Your task to perform on an android device: Open my contact list Image 0: 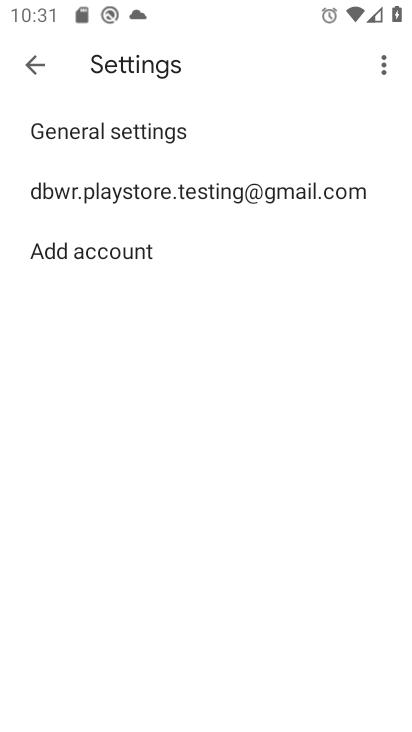
Step 0: click (370, 170)
Your task to perform on an android device: Open my contact list Image 1: 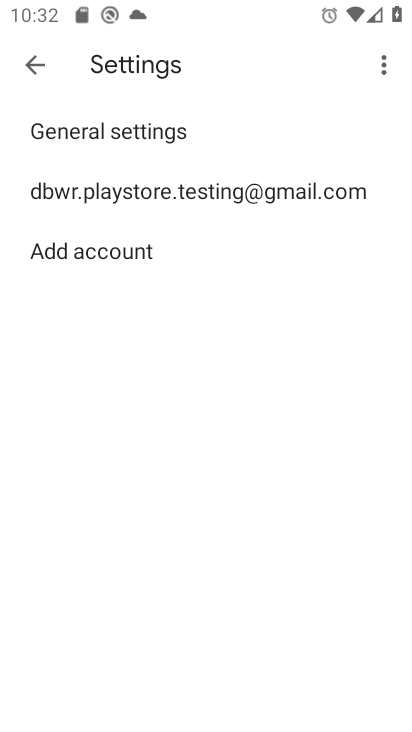
Step 1: click (22, 72)
Your task to perform on an android device: Open my contact list Image 2: 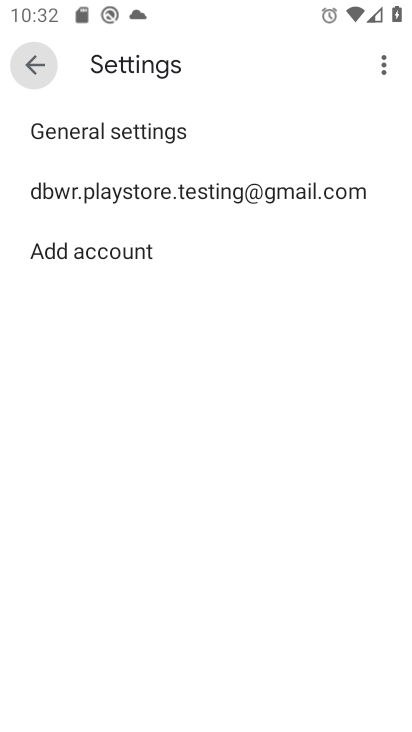
Step 2: click (22, 72)
Your task to perform on an android device: Open my contact list Image 3: 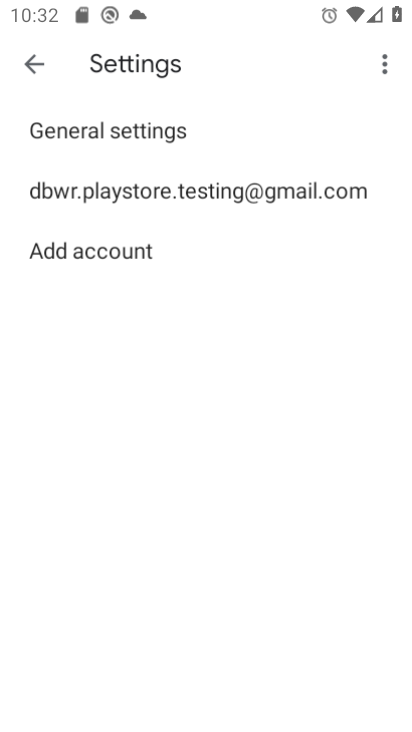
Step 3: click (27, 68)
Your task to perform on an android device: Open my contact list Image 4: 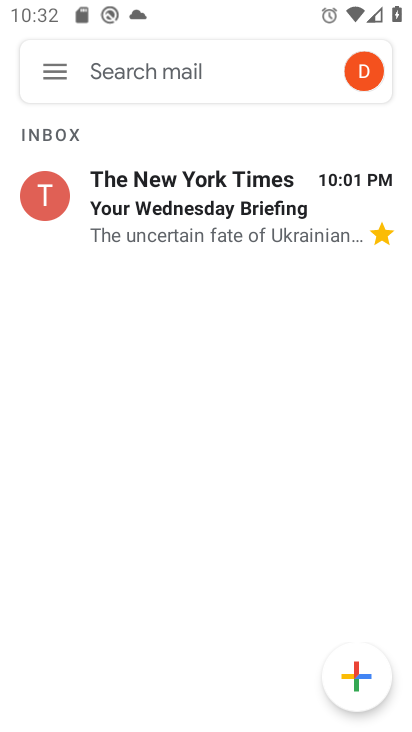
Step 4: click (48, 80)
Your task to perform on an android device: Open my contact list Image 5: 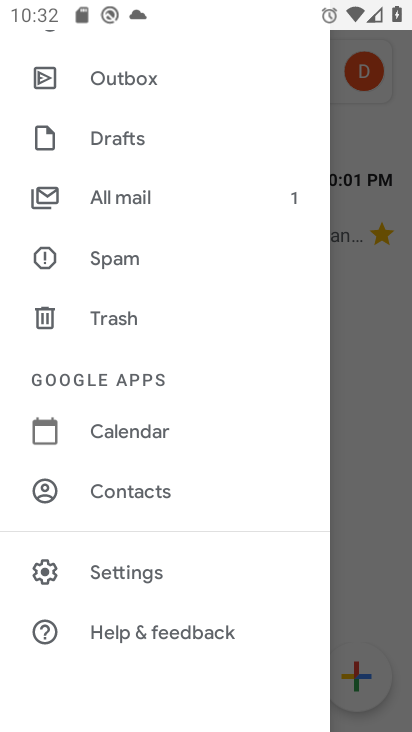
Step 5: press back button
Your task to perform on an android device: Open my contact list Image 6: 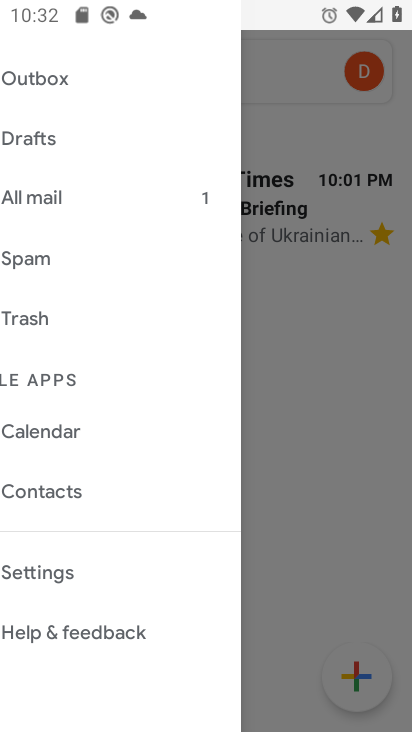
Step 6: press back button
Your task to perform on an android device: Open my contact list Image 7: 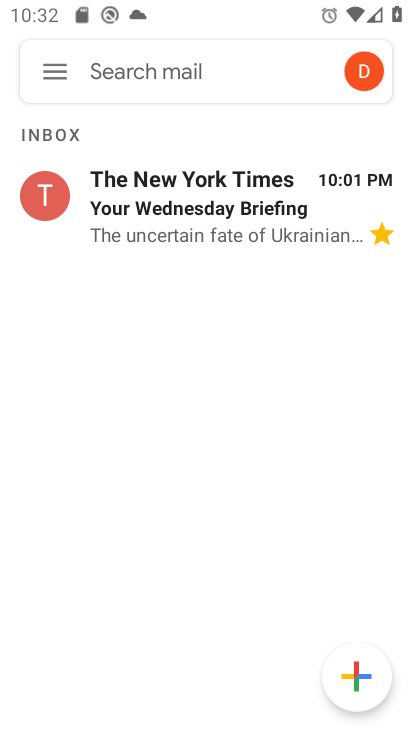
Step 7: press back button
Your task to perform on an android device: Open my contact list Image 8: 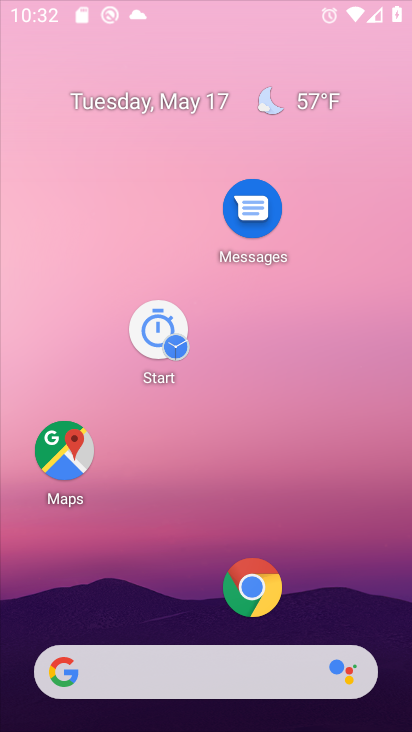
Step 8: press back button
Your task to perform on an android device: Open my contact list Image 9: 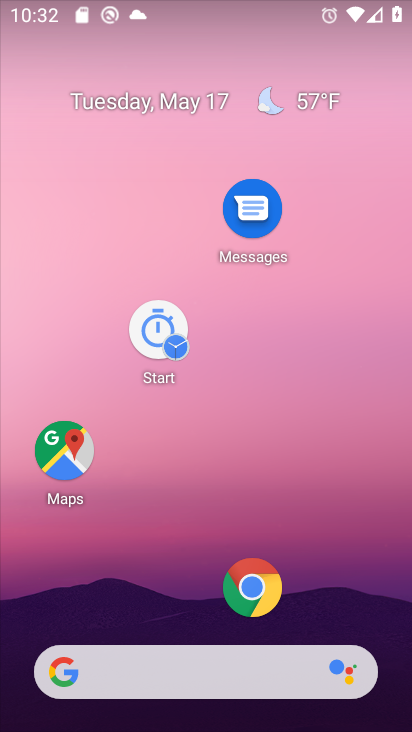
Step 9: drag from (320, 628) to (222, 196)
Your task to perform on an android device: Open my contact list Image 10: 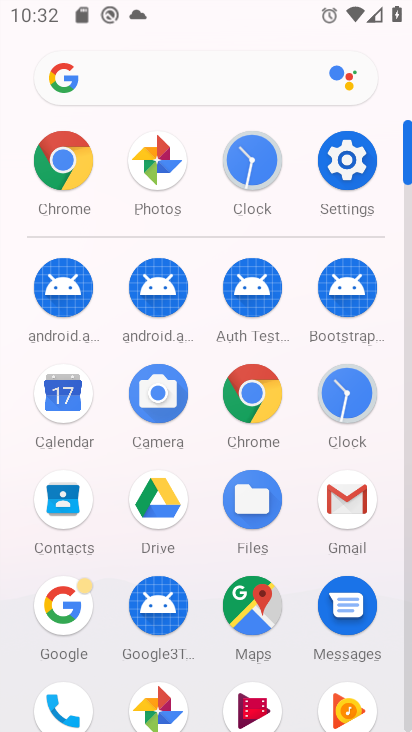
Step 10: click (47, 492)
Your task to perform on an android device: Open my contact list Image 11: 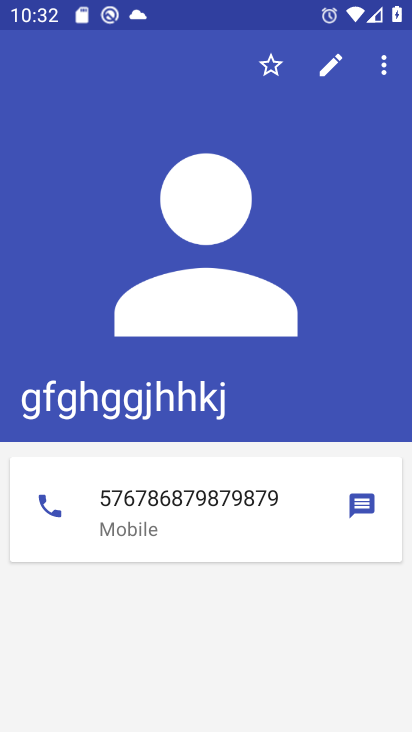
Step 11: task complete